Your task to perform on an android device: change timer sound Image 0: 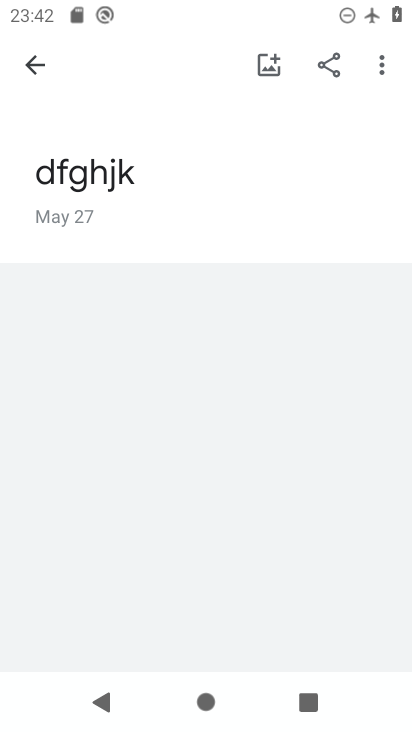
Step 0: press home button
Your task to perform on an android device: change timer sound Image 1: 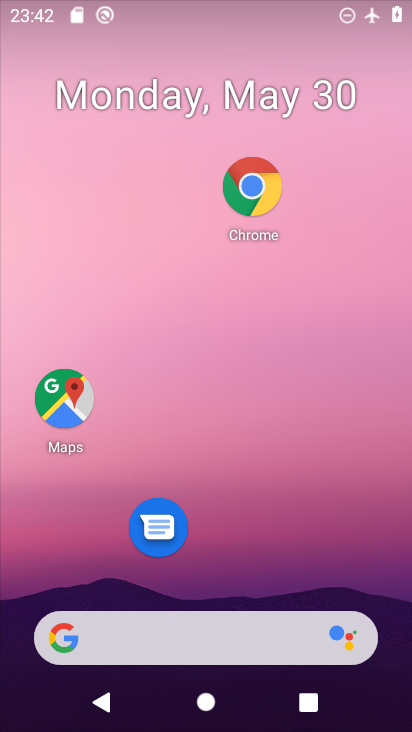
Step 1: drag from (261, 566) to (260, 267)
Your task to perform on an android device: change timer sound Image 2: 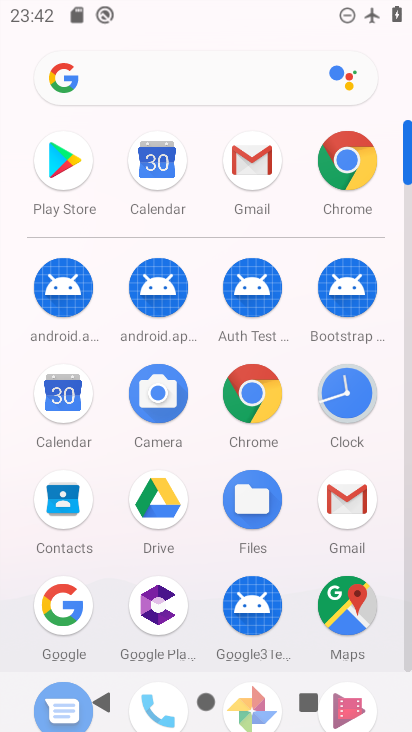
Step 2: click (337, 391)
Your task to perform on an android device: change timer sound Image 3: 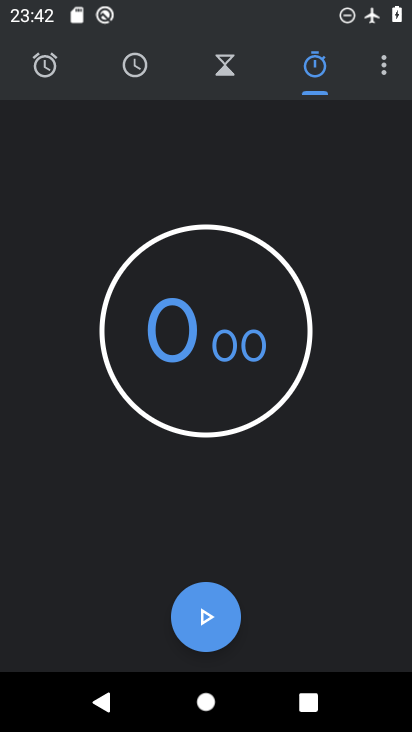
Step 3: click (385, 67)
Your task to perform on an android device: change timer sound Image 4: 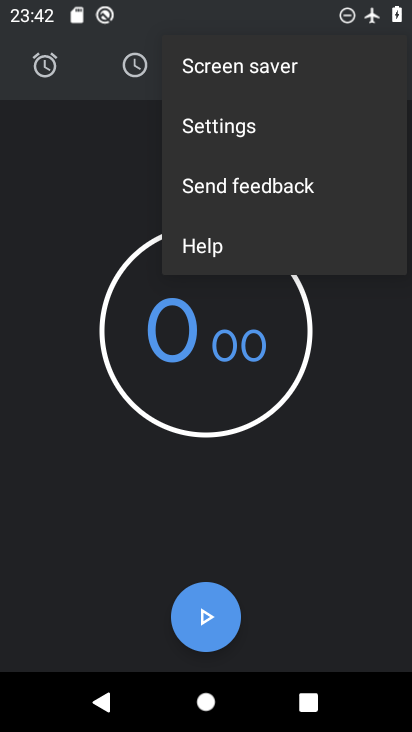
Step 4: click (238, 126)
Your task to perform on an android device: change timer sound Image 5: 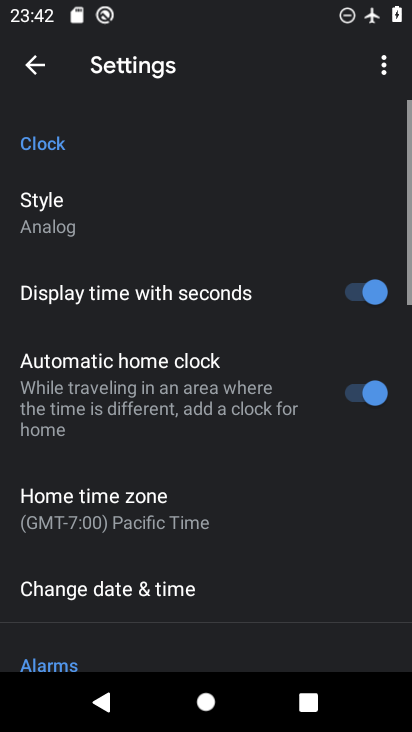
Step 5: drag from (189, 564) to (249, 182)
Your task to perform on an android device: change timer sound Image 6: 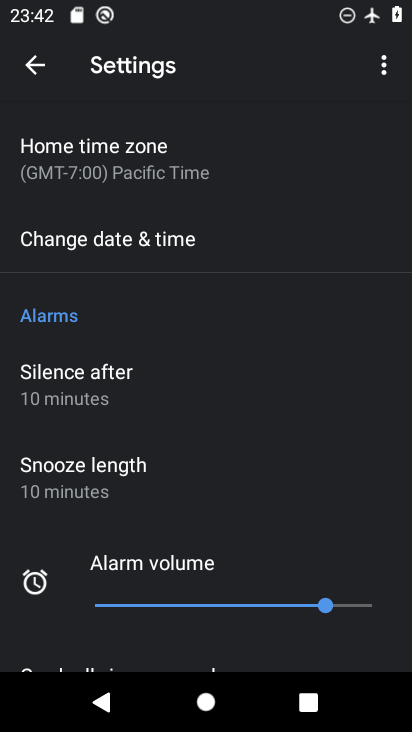
Step 6: drag from (172, 556) to (205, 305)
Your task to perform on an android device: change timer sound Image 7: 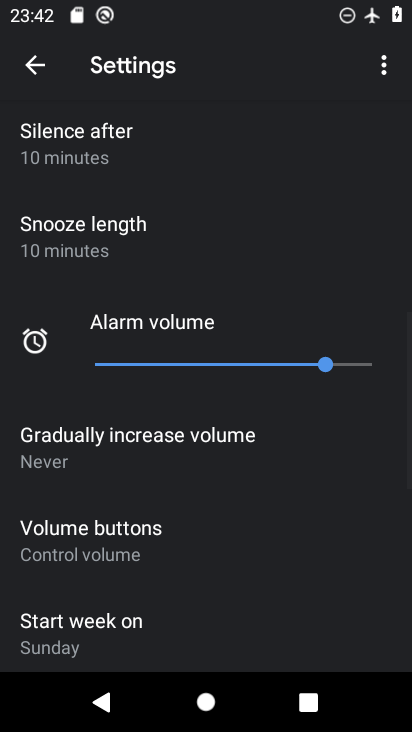
Step 7: drag from (141, 484) to (195, 193)
Your task to perform on an android device: change timer sound Image 8: 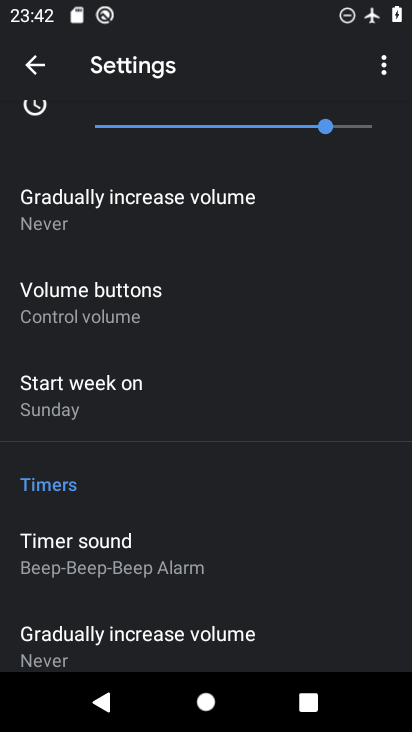
Step 8: click (131, 544)
Your task to perform on an android device: change timer sound Image 9: 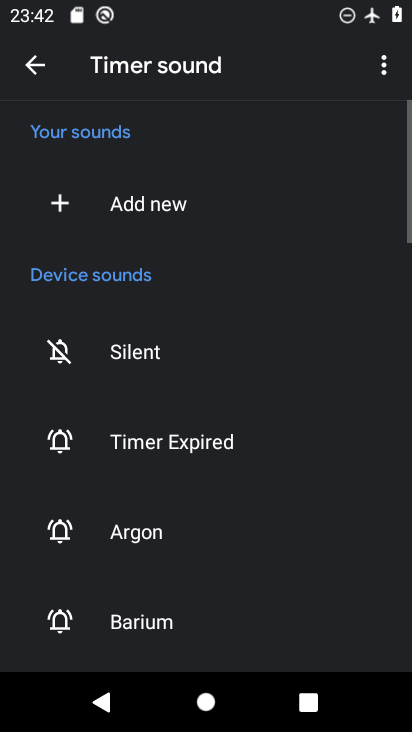
Step 9: click (139, 344)
Your task to perform on an android device: change timer sound Image 10: 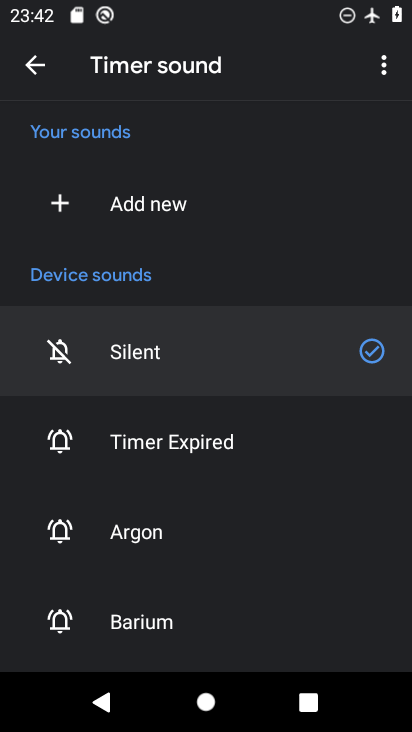
Step 10: task complete